Your task to perform on an android device: turn off wifi Image 0: 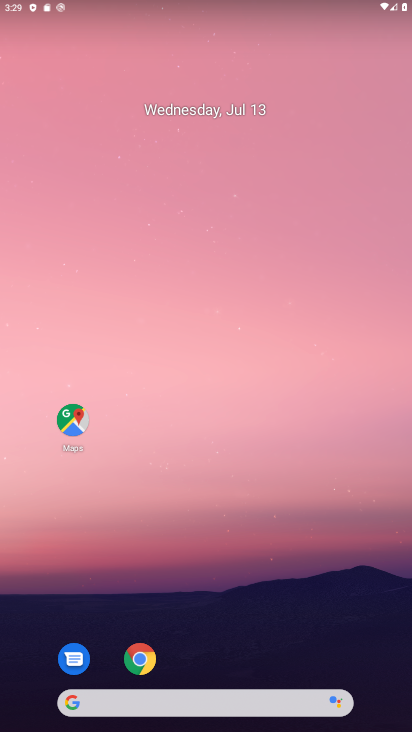
Step 0: press home button
Your task to perform on an android device: turn off wifi Image 1: 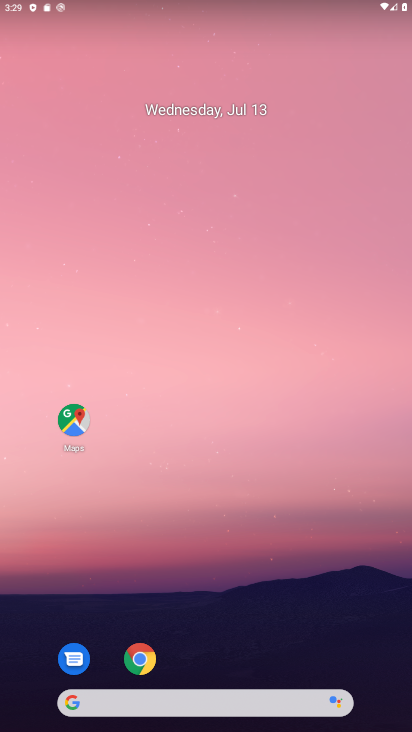
Step 1: drag from (242, 4) to (204, 718)
Your task to perform on an android device: turn off wifi Image 2: 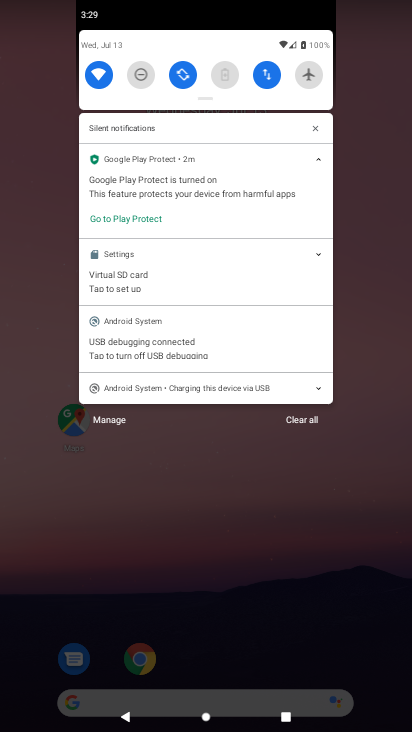
Step 2: click (97, 74)
Your task to perform on an android device: turn off wifi Image 3: 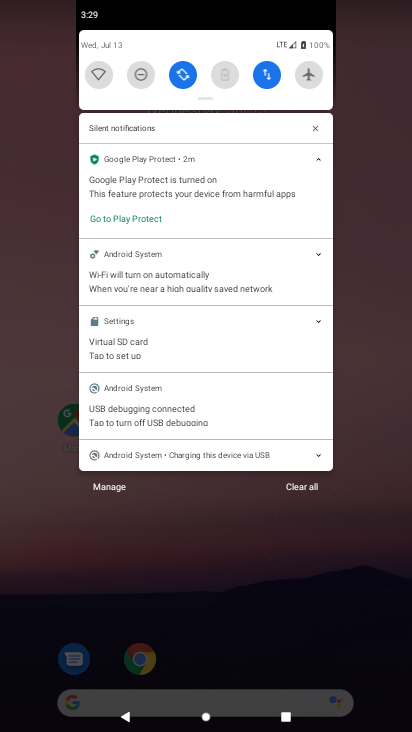
Step 3: task complete